Your task to perform on an android device: turn off sleep mode Image 0: 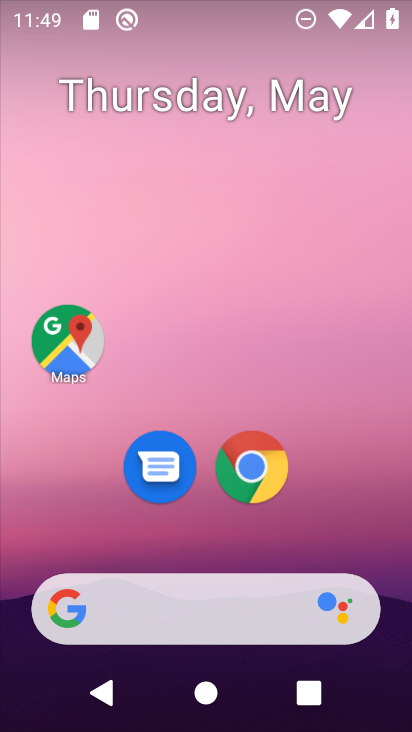
Step 0: drag from (238, 553) to (222, 108)
Your task to perform on an android device: turn off sleep mode Image 1: 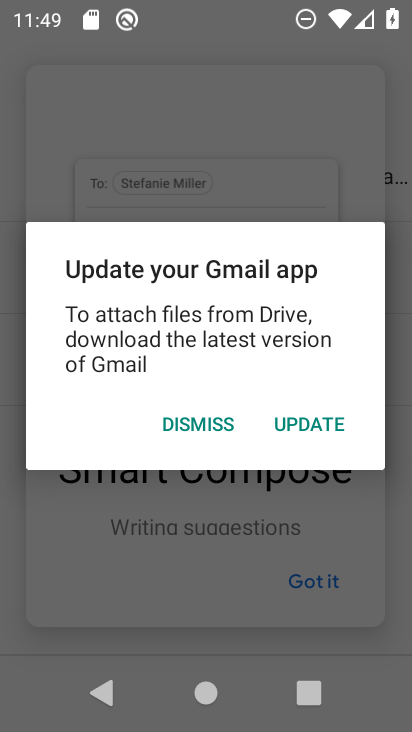
Step 1: press home button
Your task to perform on an android device: turn off sleep mode Image 2: 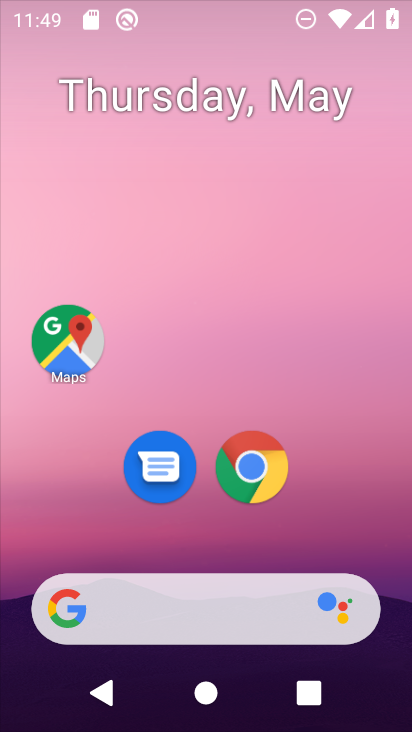
Step 2: drag from (235, 546) to (304, 88)
Your task to perform on an android device: turn off sleep mode Image 3: 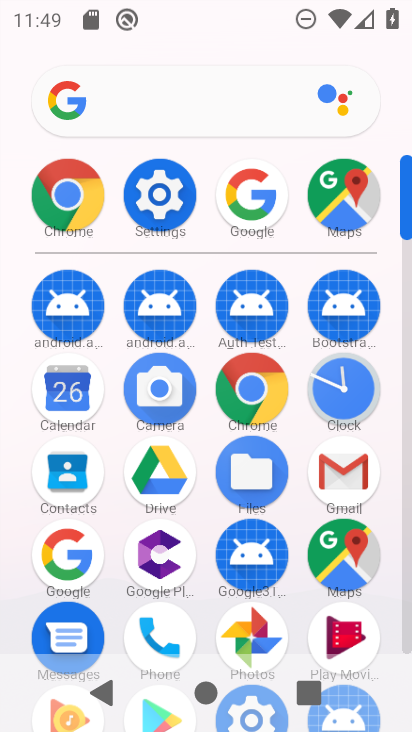
Step 3: drag from (190, 264) to (210, 78)
Your task to perform on an android device: turn off sleep mode Image 4: 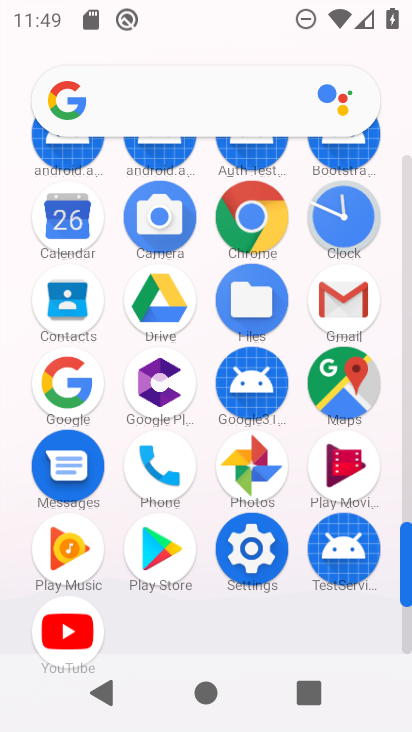
Step 4: click (277, 559)
Your task to perform on an android device: turn off sleep mode Image 5: 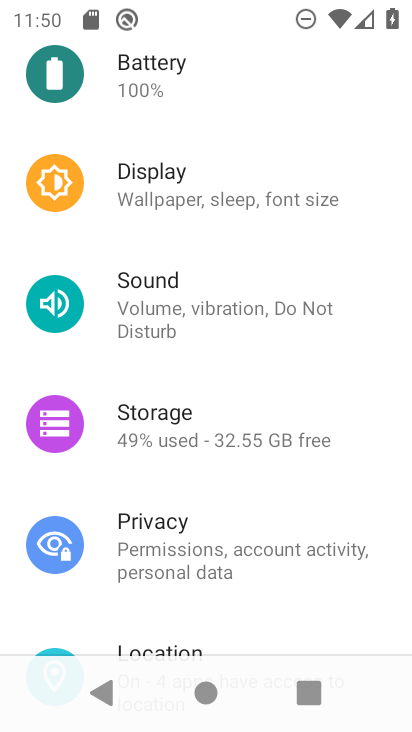
Step 5: task complete